Your task to perform on an android device: turn notification dots off Image 0: 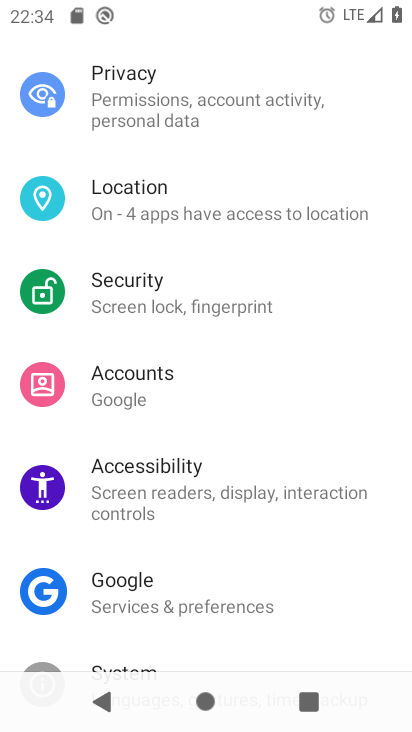
Step 0: press home button
Your task to perform on an android device: turn notification dots off Image 1: 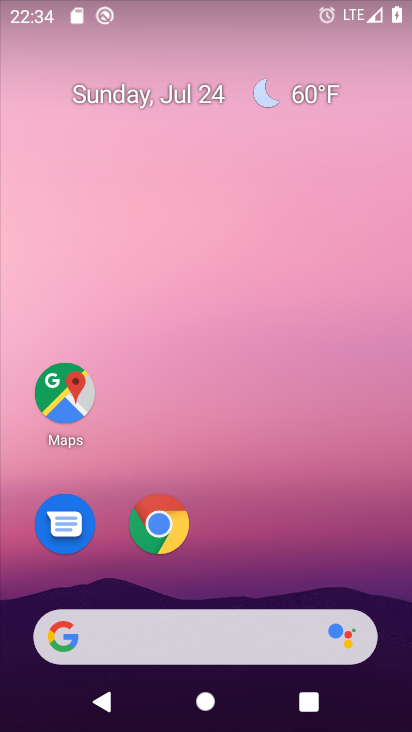
Step 1: drag from (274, 574) to (369, 0)
Your task to perform on an android device: turn notification dots off Image 2: 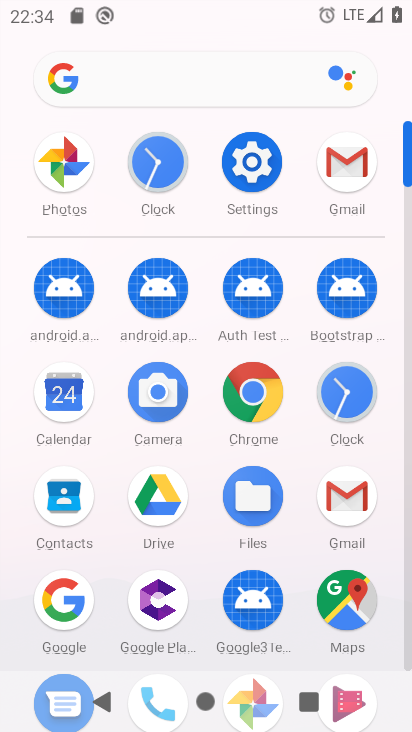
Step 2: click (262, 148)
Your task to perform on an android device: turn notification dots off Image 3: 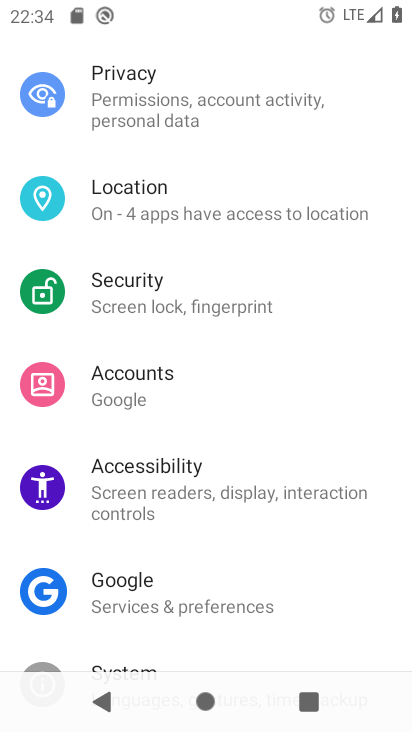
Step 3: drag from (249, 154) to (233, 577)
Your task to perform on an android device: turn notification dots off Image 4: 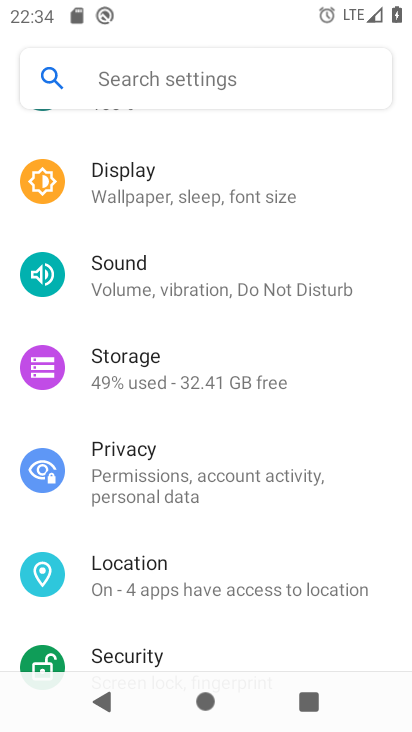
Step 4: drag from (225, 233) to (242, 587)
Your task to perform on an android device: turn notification dots off Image 5: 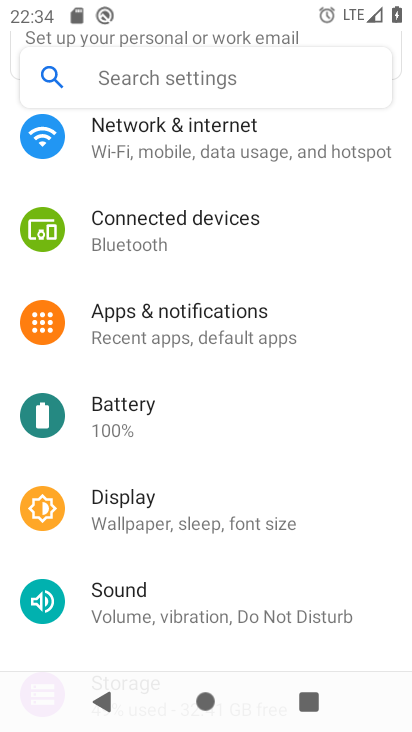
Step 5: click (232, 322)
Your task to perform on an android device: turn notification dots off Image 6: 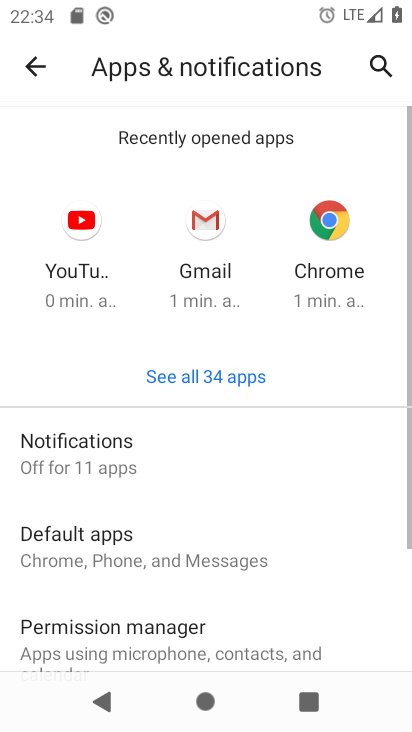
Step 6: drag from (202, 568) to (221, 209)
Your task to perform on an android device: turn notification dots off Image 7: 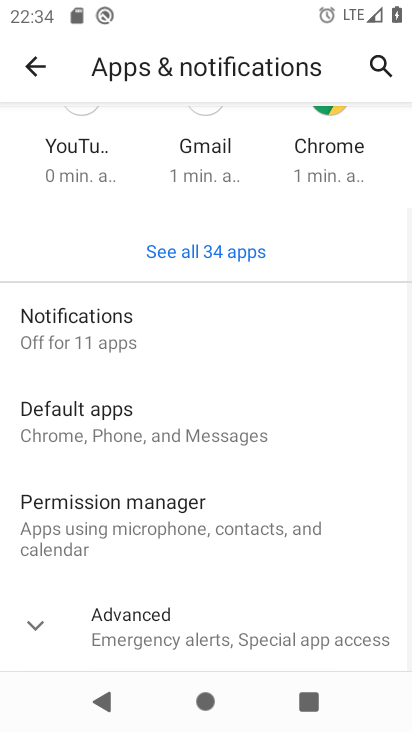
Step 7: click (104, 327)
Your task to perform on an android device: turn notification dots off Image 8: 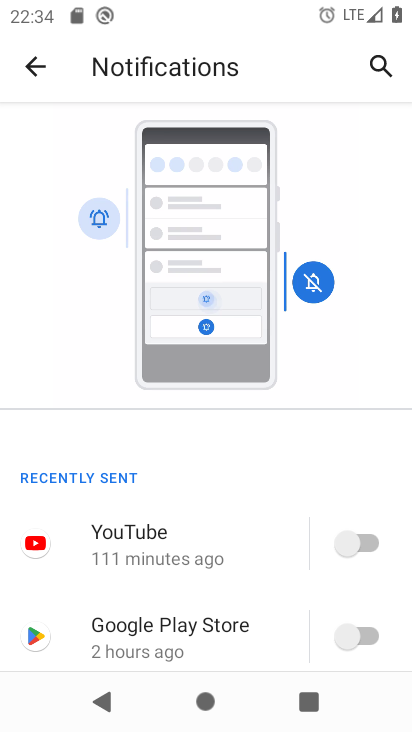
Step 8: drag from (266, 573) to (293, 142)
Your task to perform on an android device: turn notification dots off Image 9: 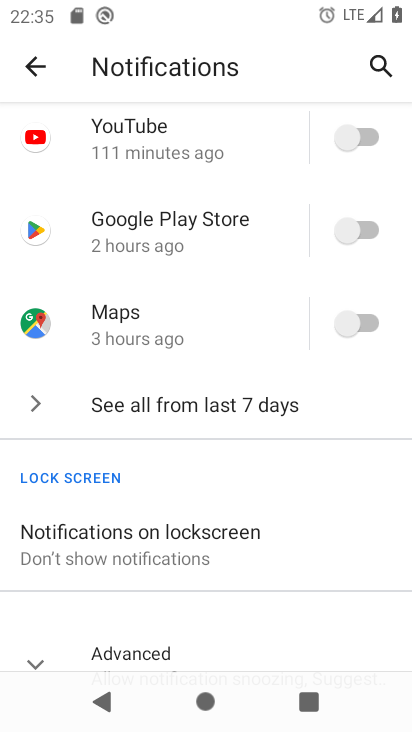
Step 9: drag from (221, 523) to (256, 241)
Your task to perform on an android device: turn notification dots off Image 10: 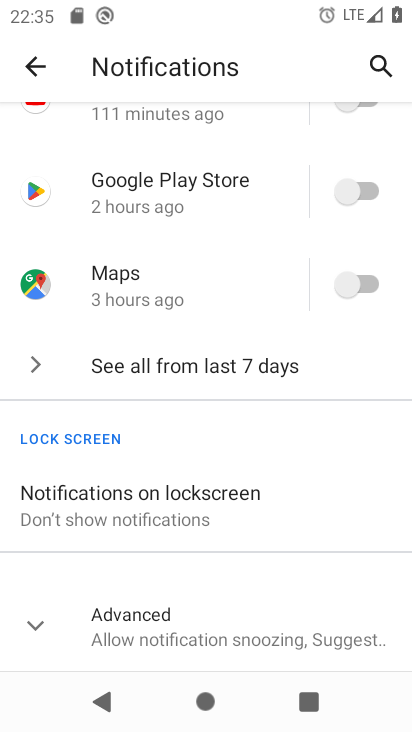
Step 10: click (210, 497)
Your task to perform on an android device: turn notification dots off Image 11: 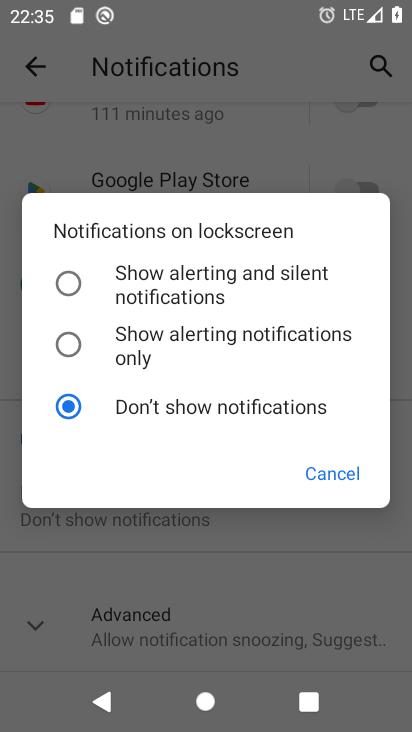
Step 11: click (326, 468)
Your task to perform on an android device: turn notification dots off Image 12: 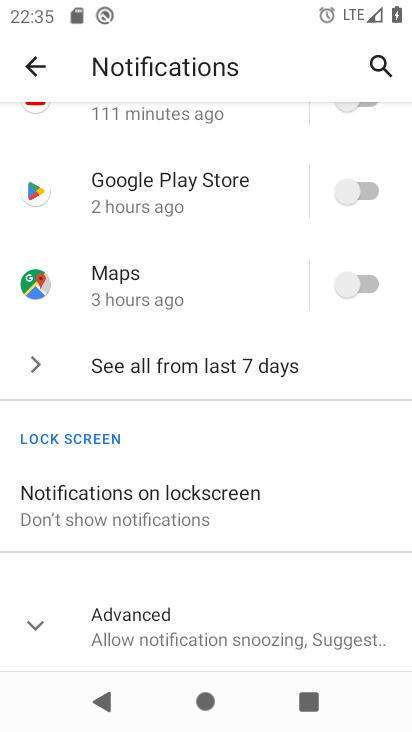
Step 12: click (38, 618)
Your task to perform on an android device: turn notification dots off Image 13: 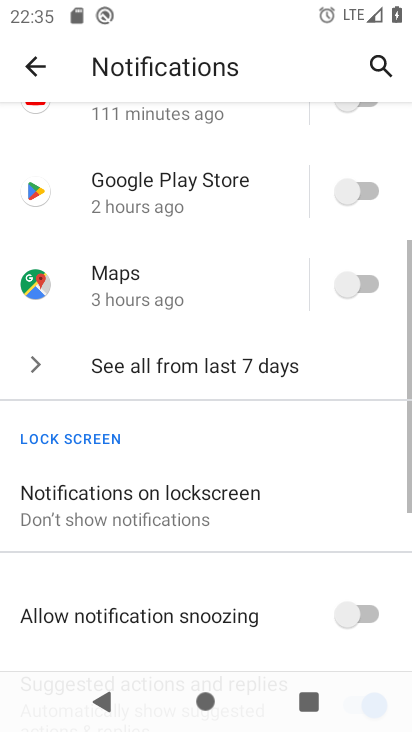
Step 13: task complete